Your task to perform on an android device: Show me the alarms in the clock app Image 0: 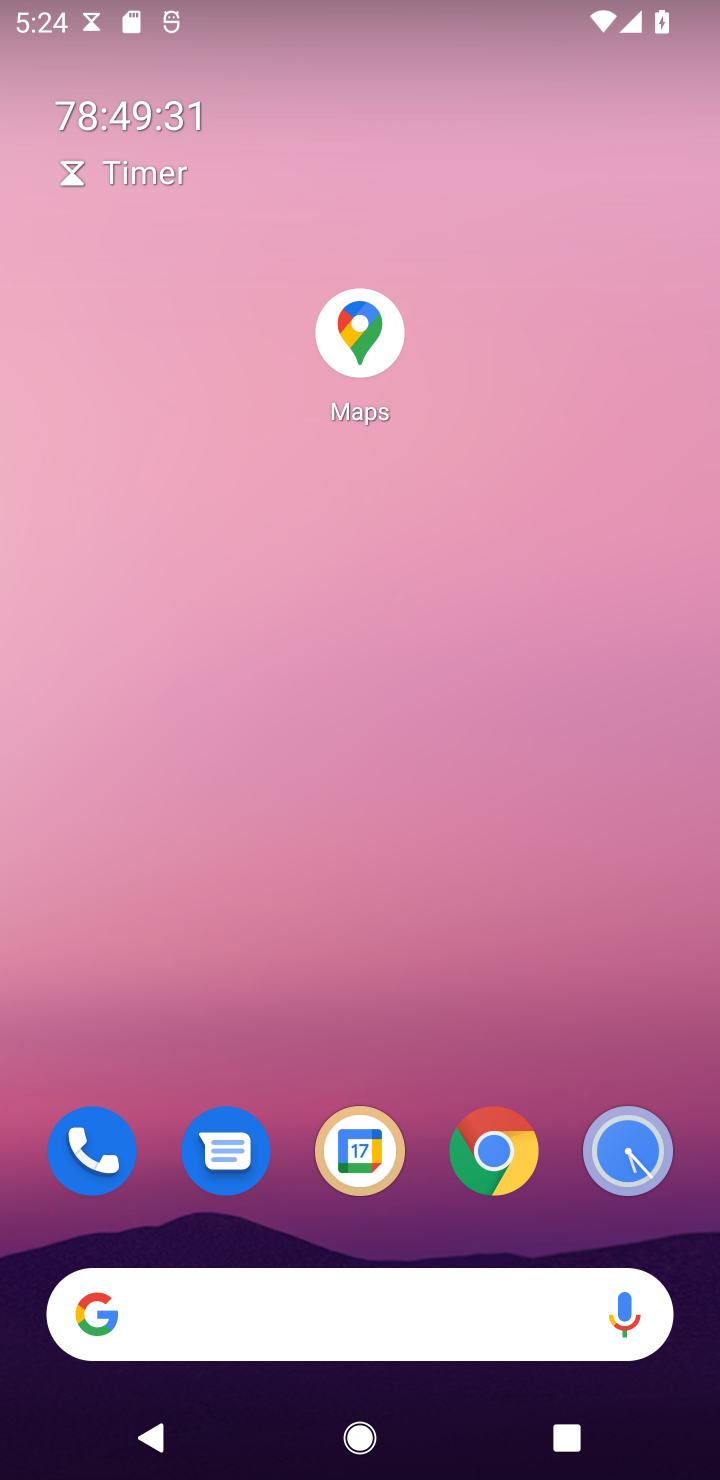
Step 0: drag from (442, 1213) to (419, 488)
Your task to perform on an android device: Show me the alarms in the clock app Image 1: 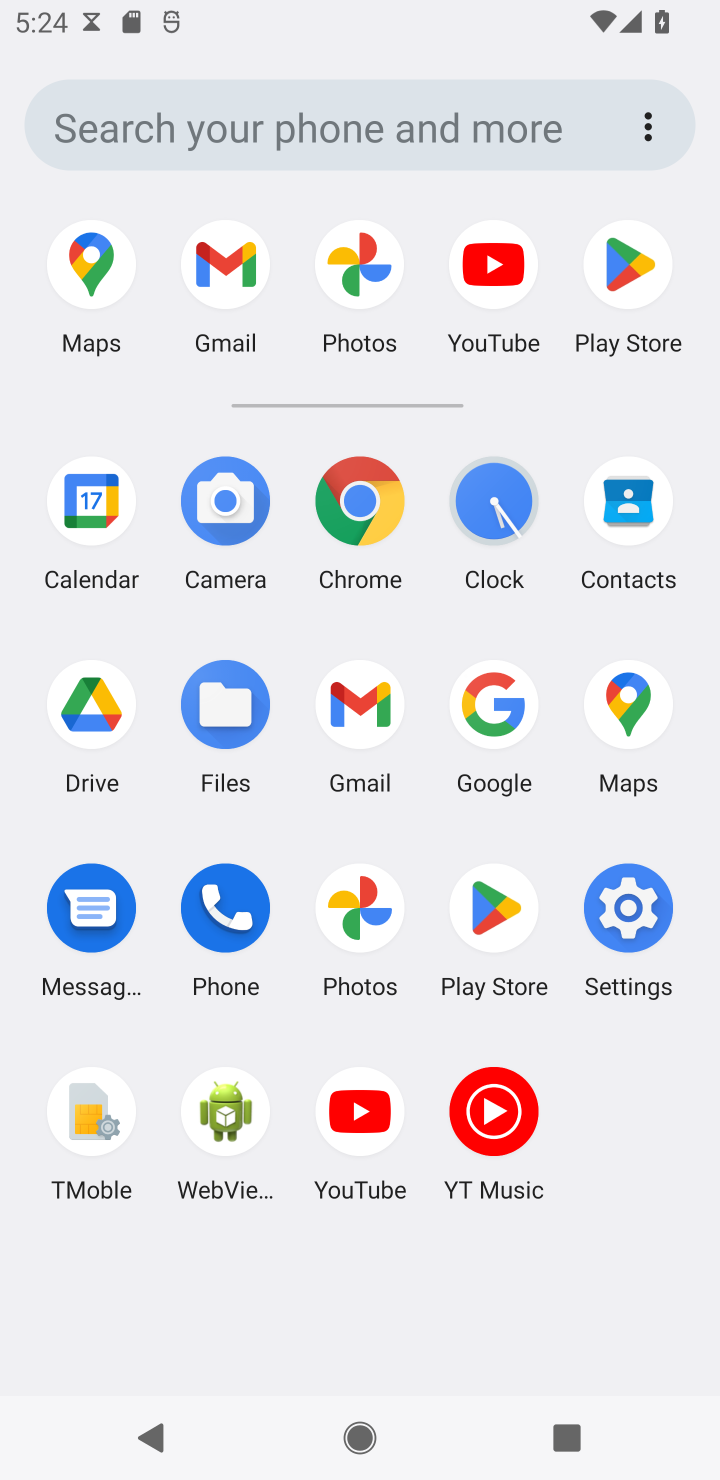
Step 1: click (492, 496)
Your task to perform on an android device: Show me the alarms in the clock app Image 2: 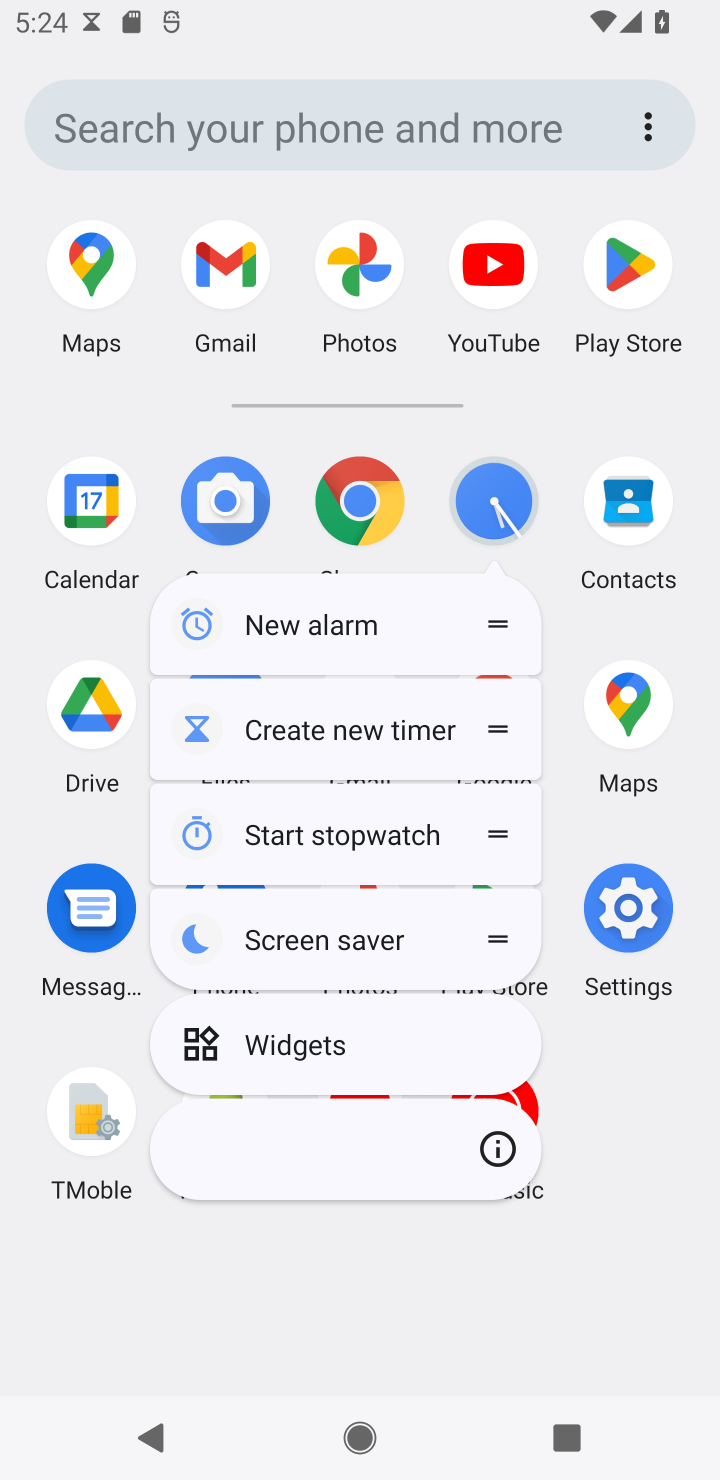
Step 2: click (492, 496)
Your task to perform on an android device: Show me the alarms in the clock app Image 3: 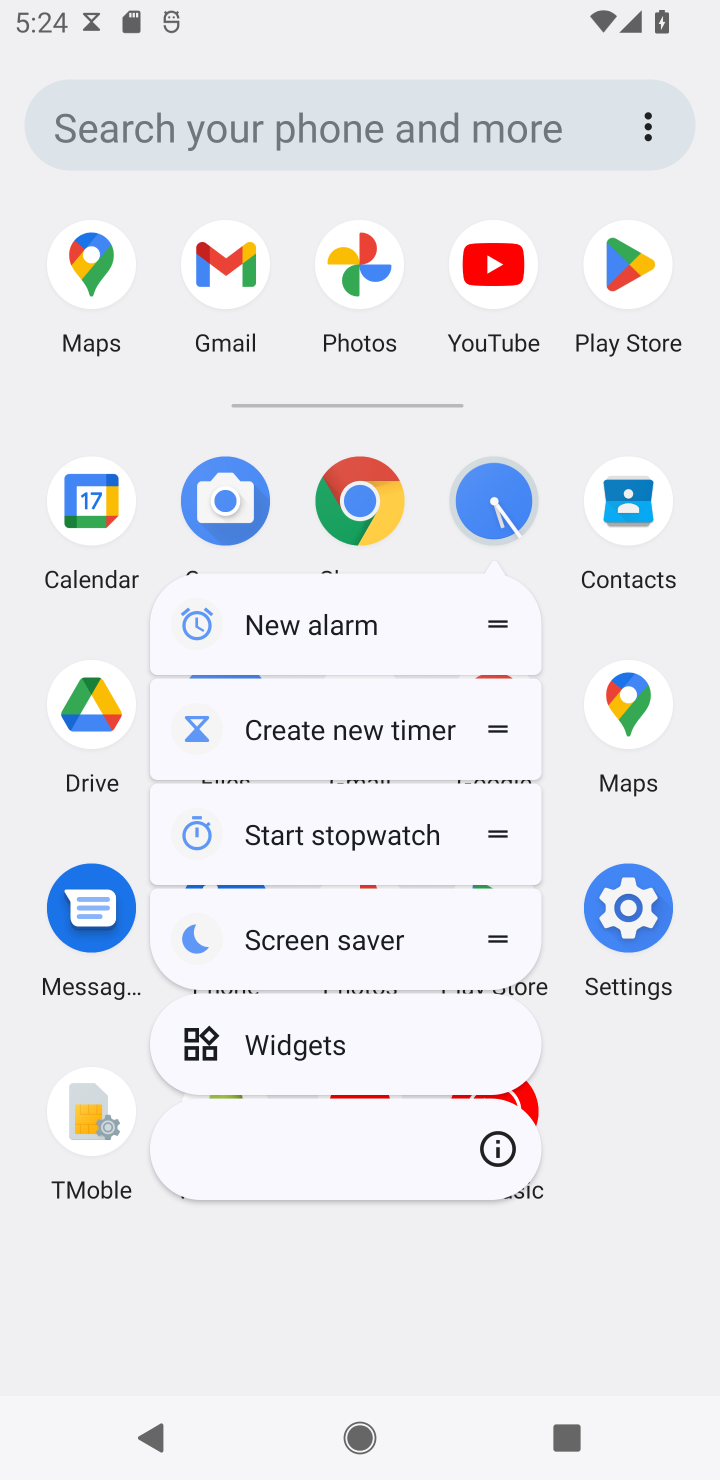
Step 3: click (492, 496)
Your task to perform on an android device: Show me the alarms in the clock app Image 4: 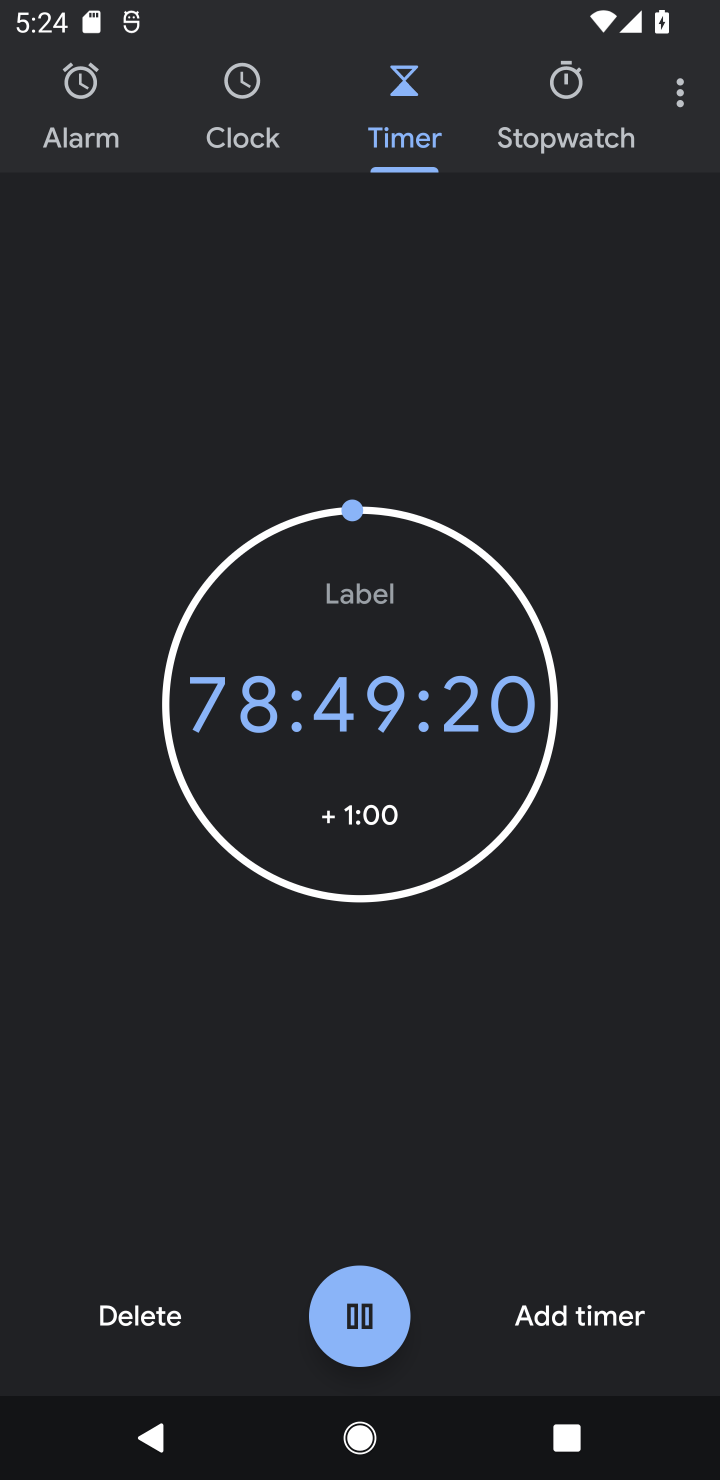
Step 4: click (82, 107)
Your task to perform on an android device: Show me the alarms in the clock app Image 5: 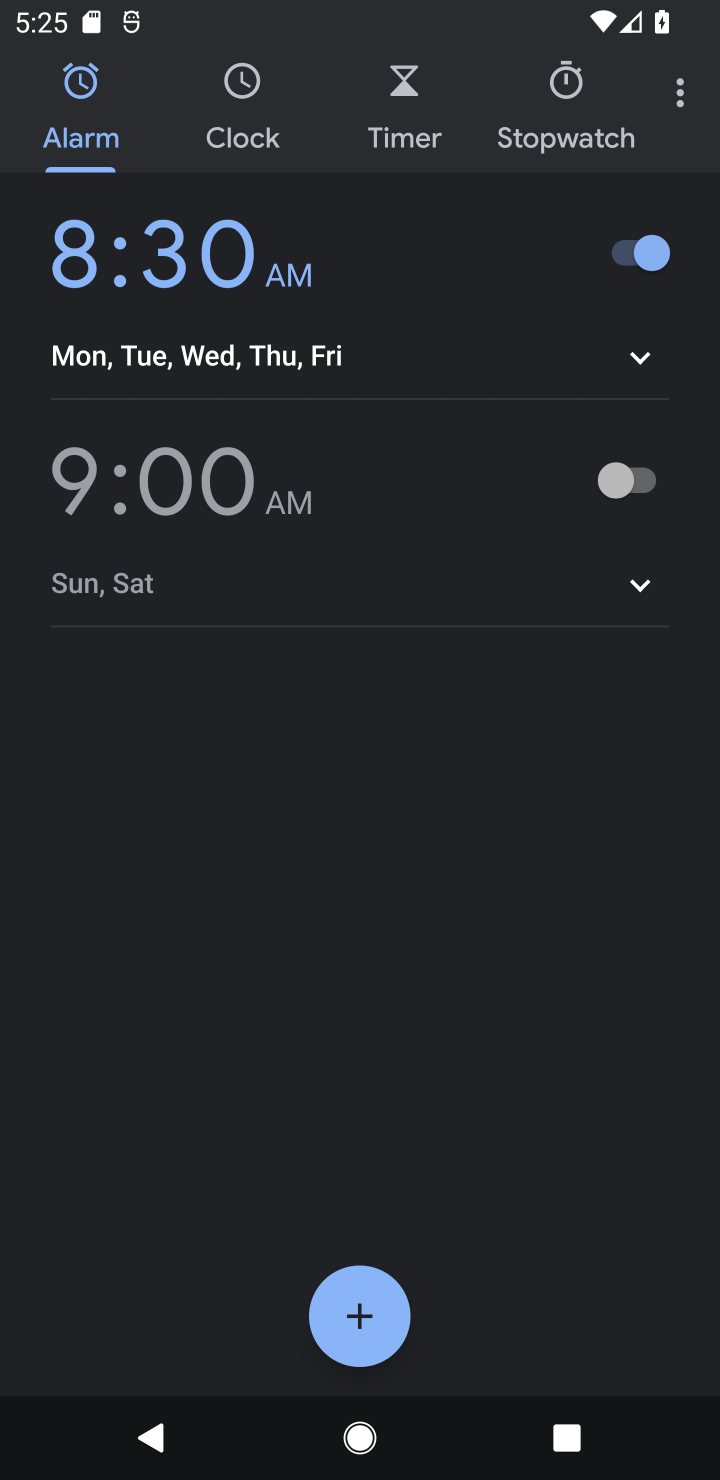
Step 5: task complete